Your task to perform on an android device: turn on notifications settings in the gmail app Image 0: 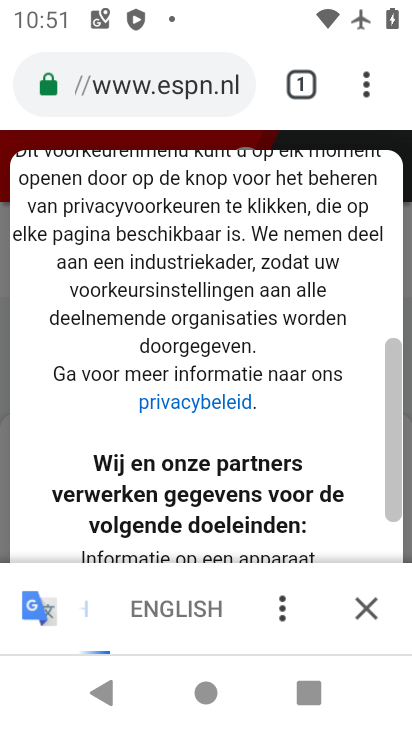
Step 0: press home button
Your task to perform on an android device: turn on notifications settings in the gmail app Image 1: 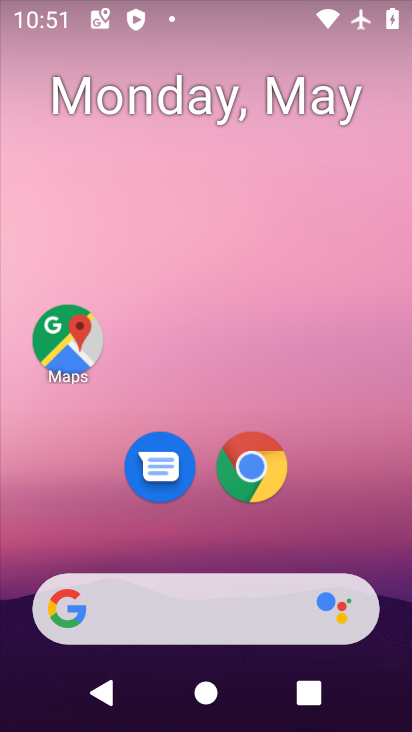
Step 1: drag from (299, 532) to (300, 61)
Your task to perform on an android device: turn on notifications settings in the gmail app Image 2: 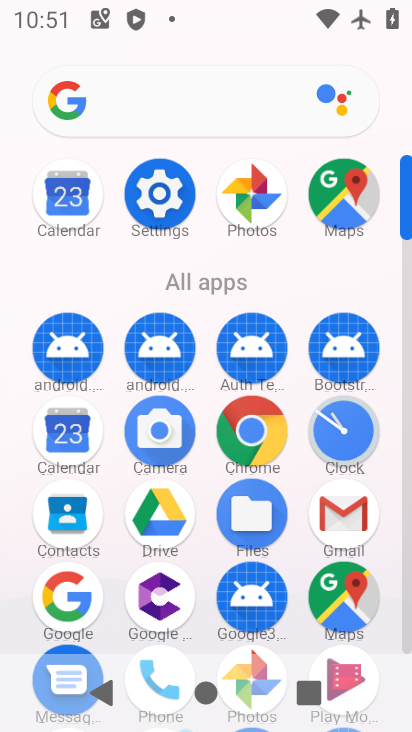
Step 2: click (339, 515)
Your task to perform on an android device: turn on notifications settings in the gmail app Image 3: 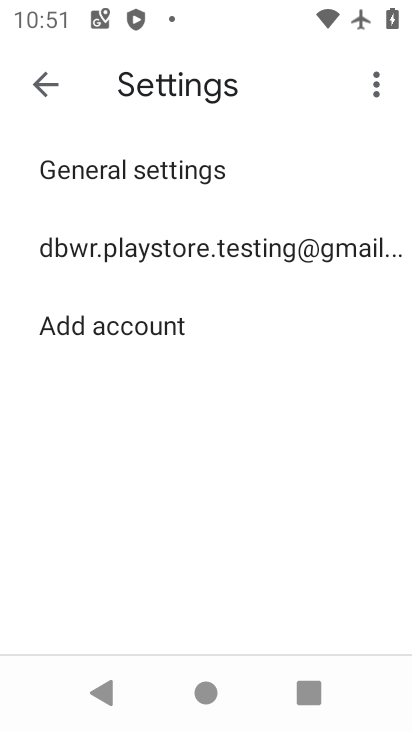
Step 3: click (100, 248)
Your task to perform on an android device: turn on notifications settings in the gmail app Image 4: 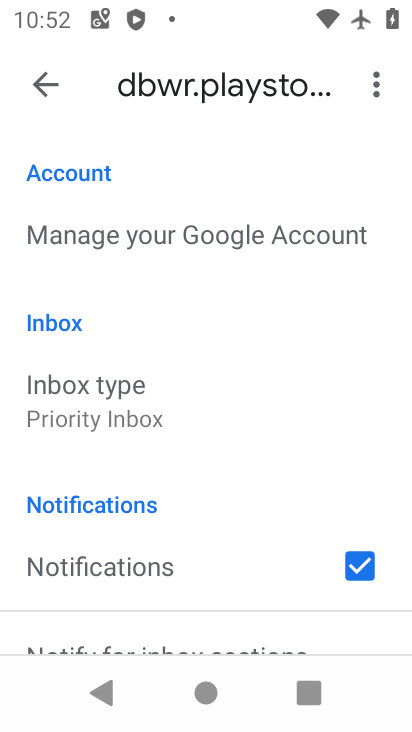
Step 4: drag from (150, 598) to (158, 371)
Your task to perform on an android device: turn on notifications settings in the gmail app Image 5: 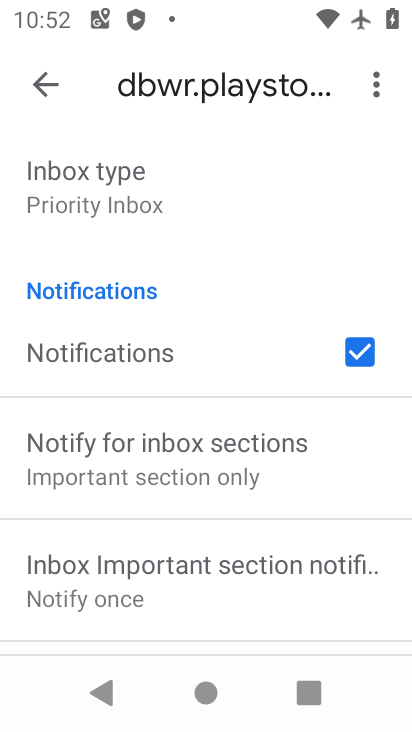
Step 5: drag from (217, 568) to (221, 274)
Your task to perform on an android device: turn on notifications settings in the gmail app Image 6: 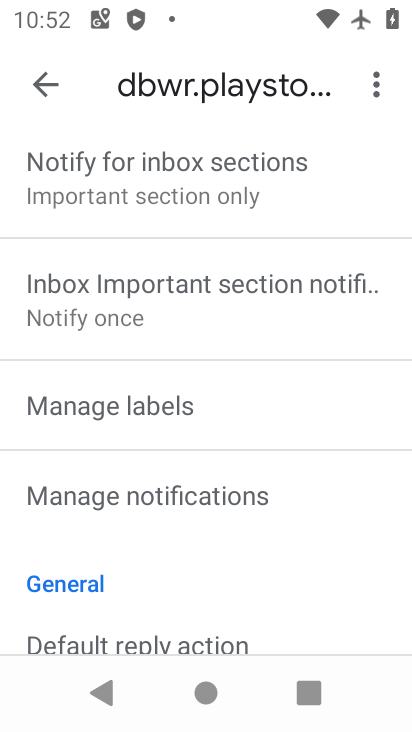
Step 6: click (166, 497)
Your task to perform on an android device: turn on notifications settings in the gmail app Image 7: 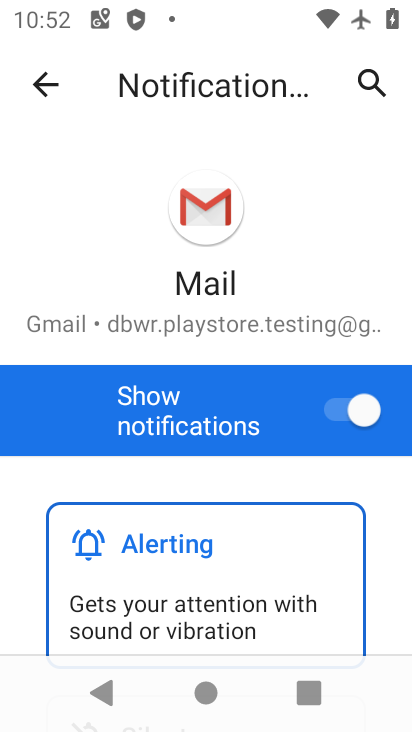
Step 7: task complete